Your task to perform on an android device: Open calendar and show me the first week of next month Image 0: 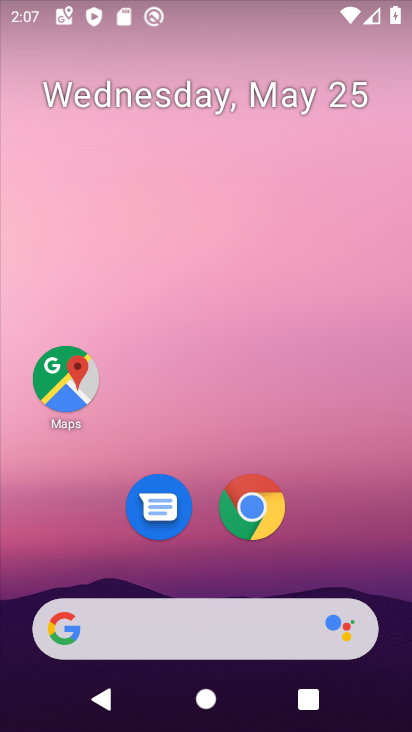
Step 0: press home button
Your task to perform on an android device: Open calendar and show me the first week of next month Image 1: 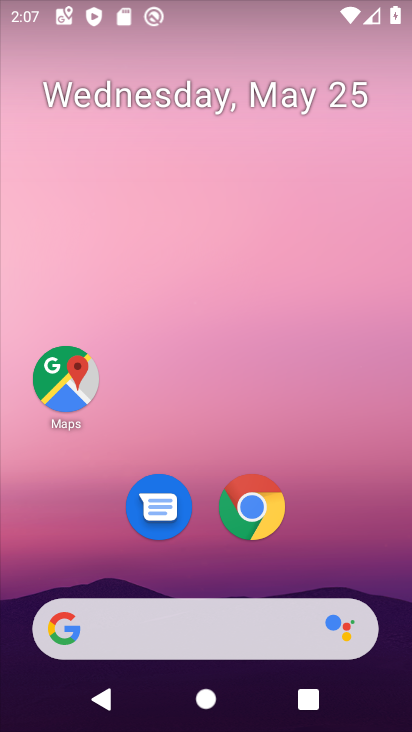
Step 1: drag from (205, 613) to (274, 2)
Your task to perform on an android device: Open calendar and show me the first week of next month Image 2: 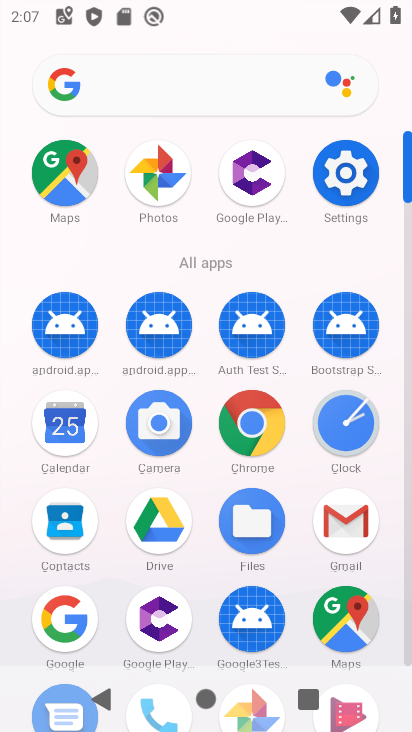
Step 2: click (63, 437)
Your task to perform on an android device: Open calendar and show me the first week of next month Image 3: 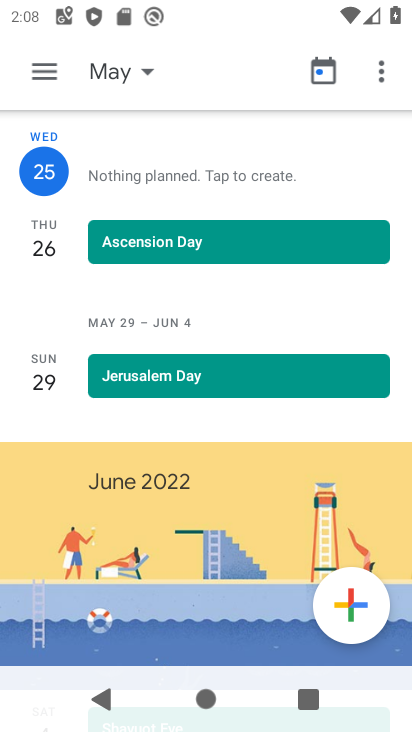
Step 3: click (130, 79)
Your task to perform on an android device: Open calendar and show me the first week of next month Image 4: 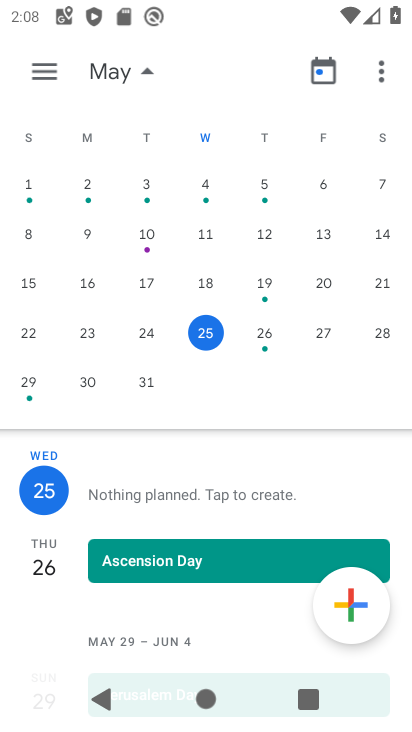
Step 4: task complete